Your task to perform on an android device: Find coffee shops on Maps Image 0: 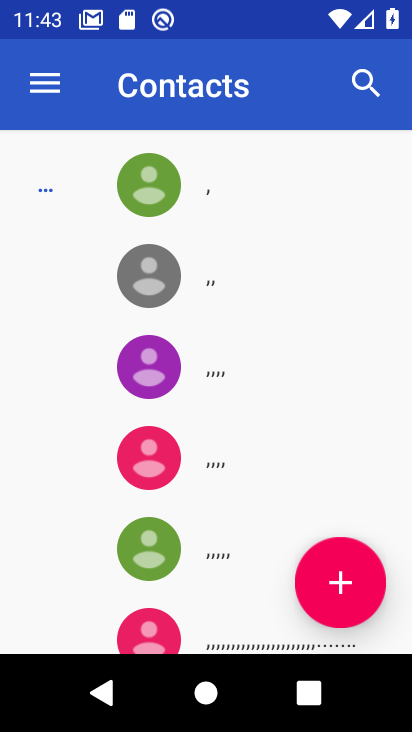
Step 0: press home button
Your task to perform on an android device: Find coffee shops on Maps Image 1: 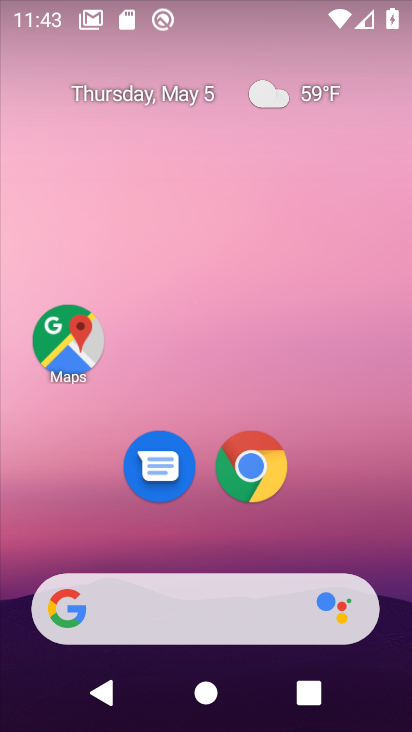
Step 1: click (51, 341)
Your task to perform on an android device: Find coffee shops on Maps Image 2: 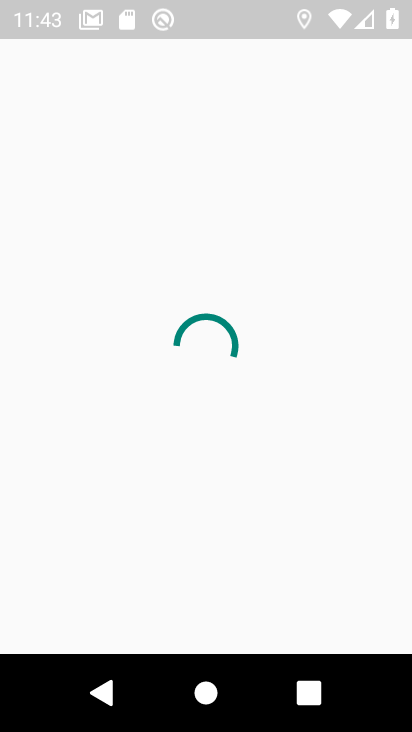
Step 2: click (216, 78)
Your task to perform on an android device: Find coffee shops on Maps Image 3: 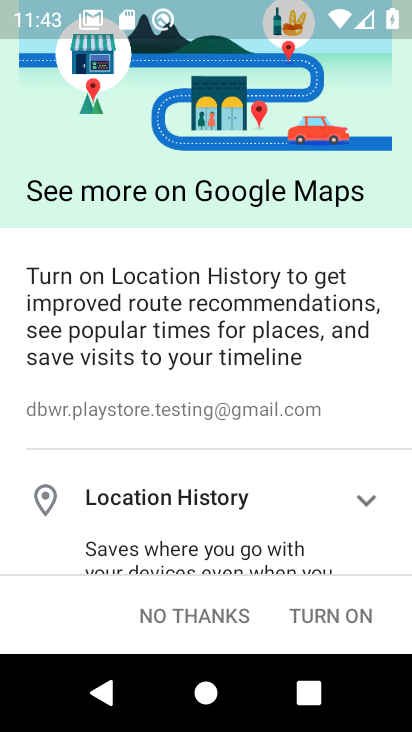
Step 3: click (234, 622)
Your task to perform on an android device: Find coffee shops on Maps Image 4: 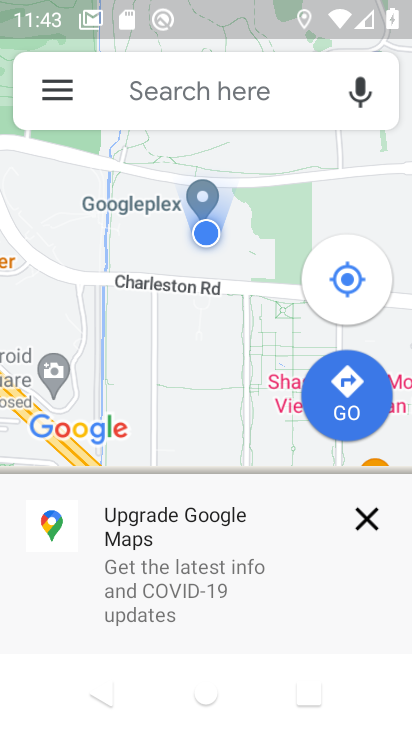
Step 4: click (367, 515)
Your task to perform on an android device: Find coffee shops on Maps Image 5: 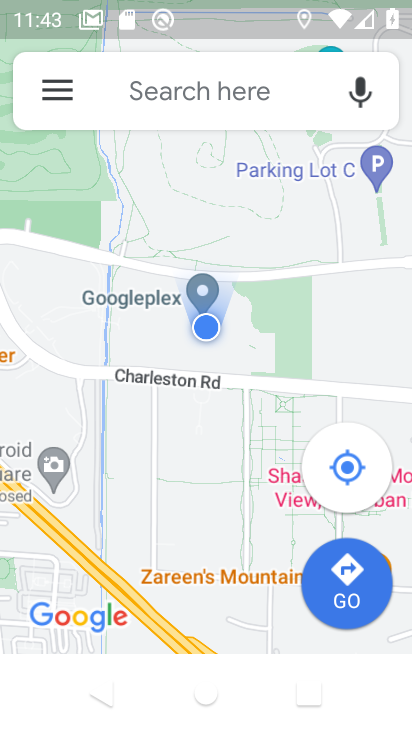
Step 5: click (207, 112)
Your task to perform on an android device: Find coffee shops on Maps Image 6: 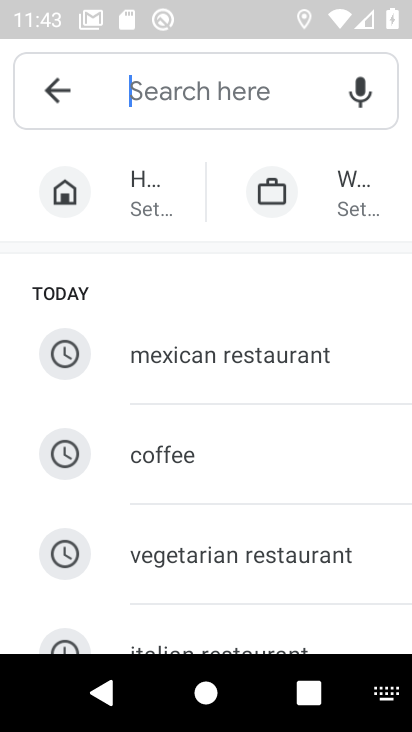
Step 6: type "coffee shops"
Your task to perform on an android device: Find coffee shops on Maps Image 7: 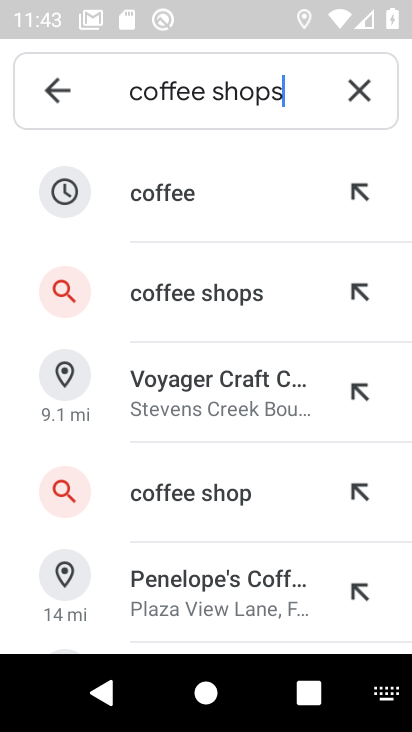
Step 7: click (231, 293)
Your task to perform on an android device: Find coffee shops on Maps Image 8: 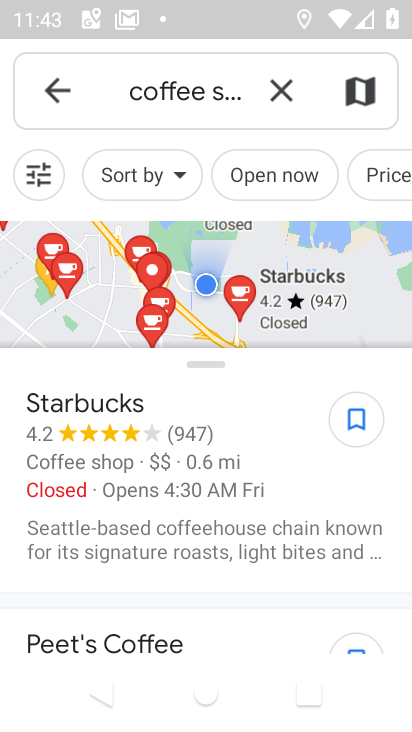
Step 8: task complete